Your task to perform on an android device: Empty the shopping cart on costco.com. Add "jbl flip 4" to the cart on costco.com, then select checkout. Image 0: 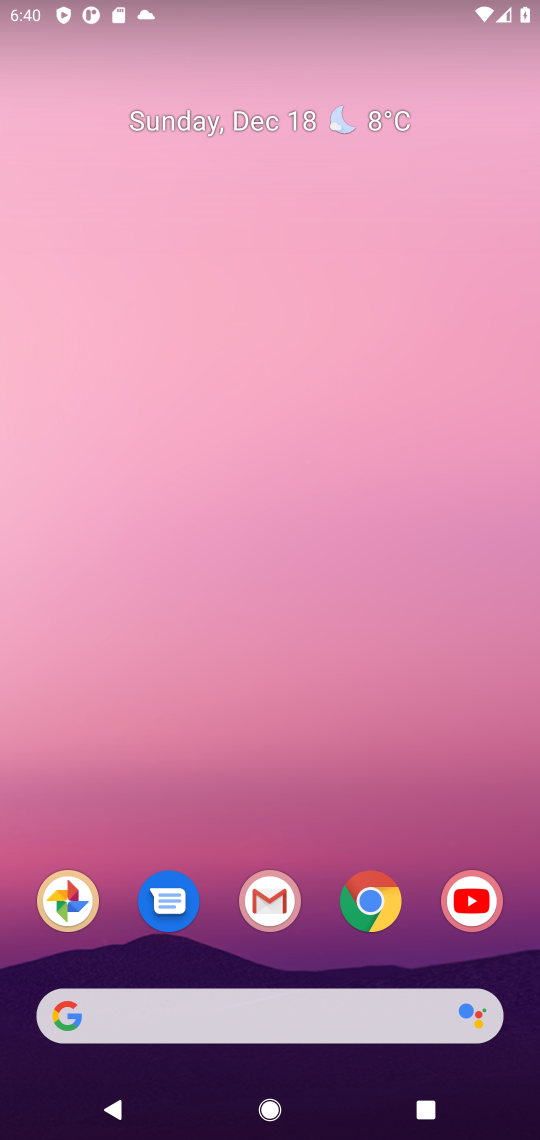
Step 0: click (250, 1031)
Your task to perform on an android device: Empty the shopping cart on costco.com. Add "jbl flip 4" to the cart on costco.com, then select checkout. Image 1: 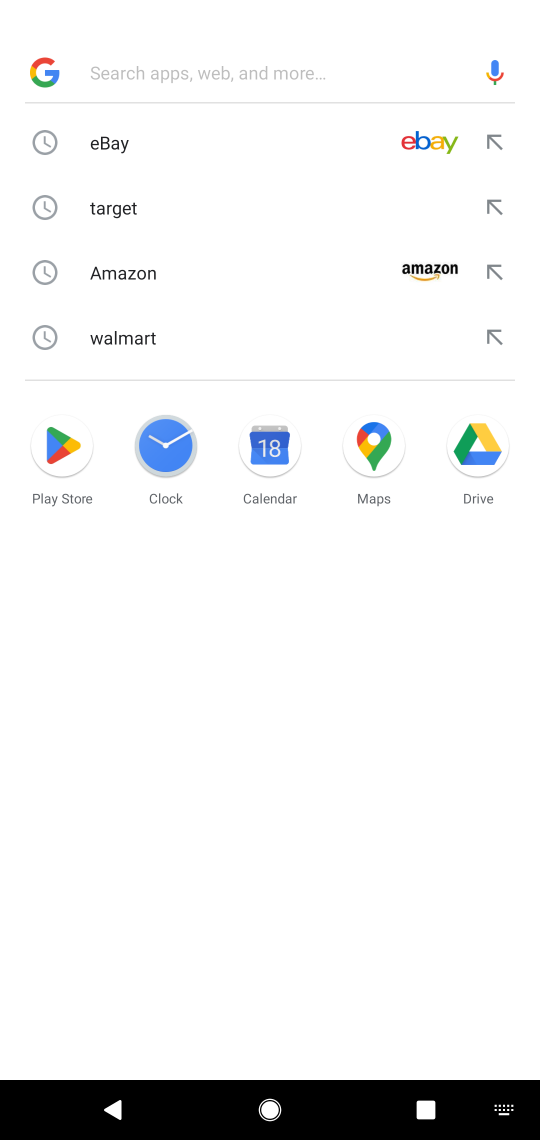
Step 1: type "costco"
Your task to perform on an android device: Empty the shopping cart on costco.com. Add "jbl flip 4" to the cart on costco.com, then select checkout. Image 2: 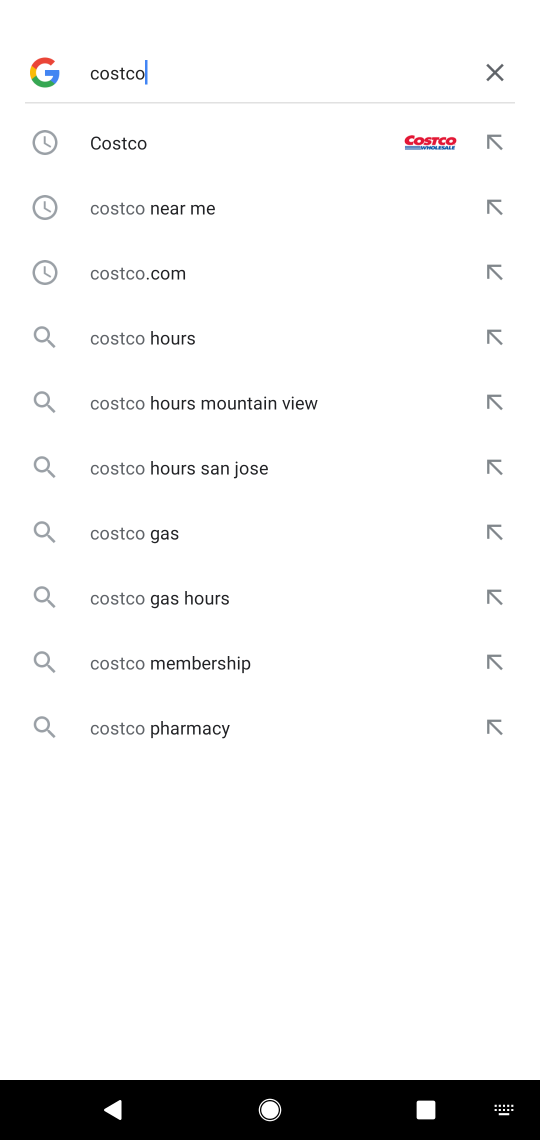
Step 2: click (131, 150)
Your task to perform on an android device: Empty the shopping cart on costco.com. Add "jbl flip 4" to the cart on costco.com, then select checkout. Image 3: 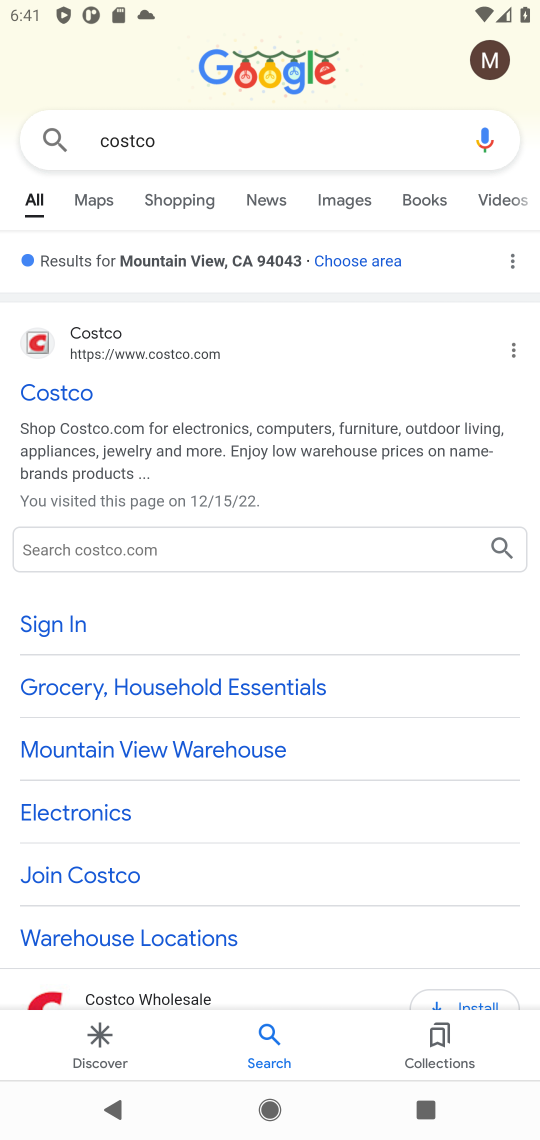
Step 3: click (57, 392)
Your task to perform on an android device: Empty the shopping cart on costco.com. Add "jbl flip 4" to the cart on costco.com, then select checkout. Image 4: 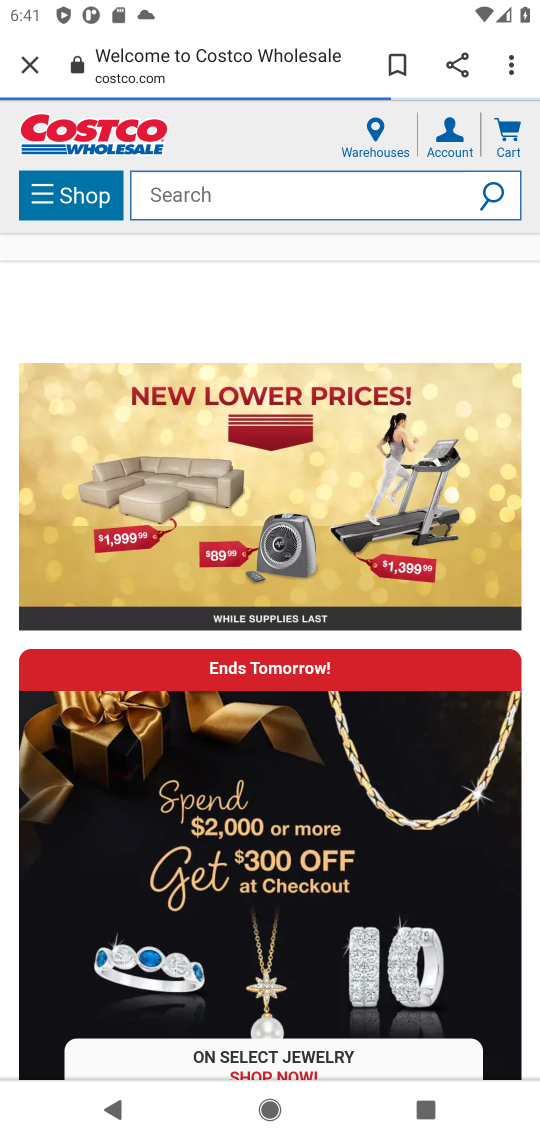
Step 4: task complete